Your task to perform on an android device: open app "AliExpress" (install if not already installed) and go to login screen Image 0: 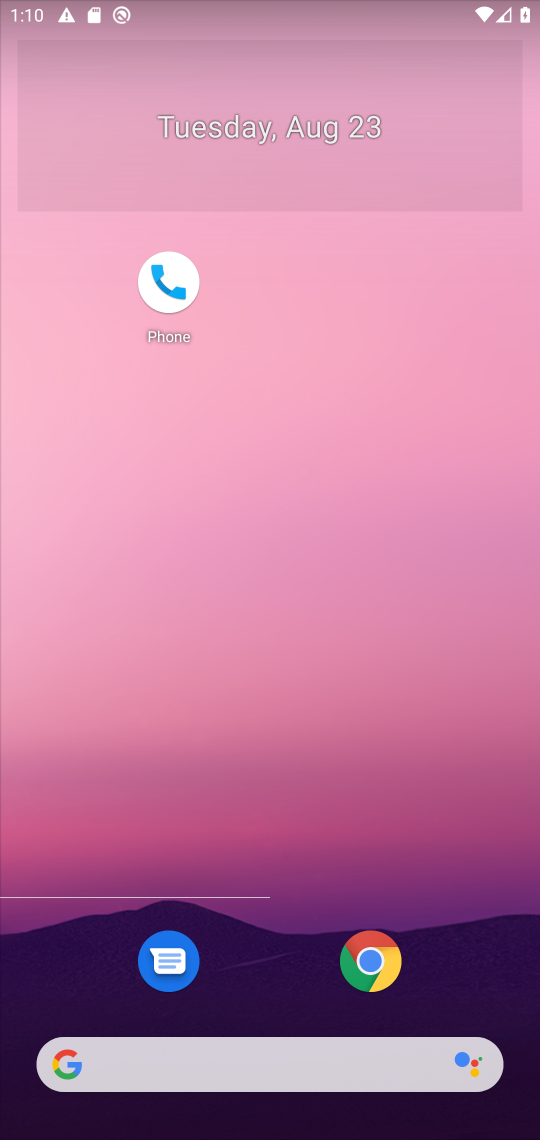
Step 0: task complete